Your task to perform on an android device: uninstall "Pinterest" Image 0: 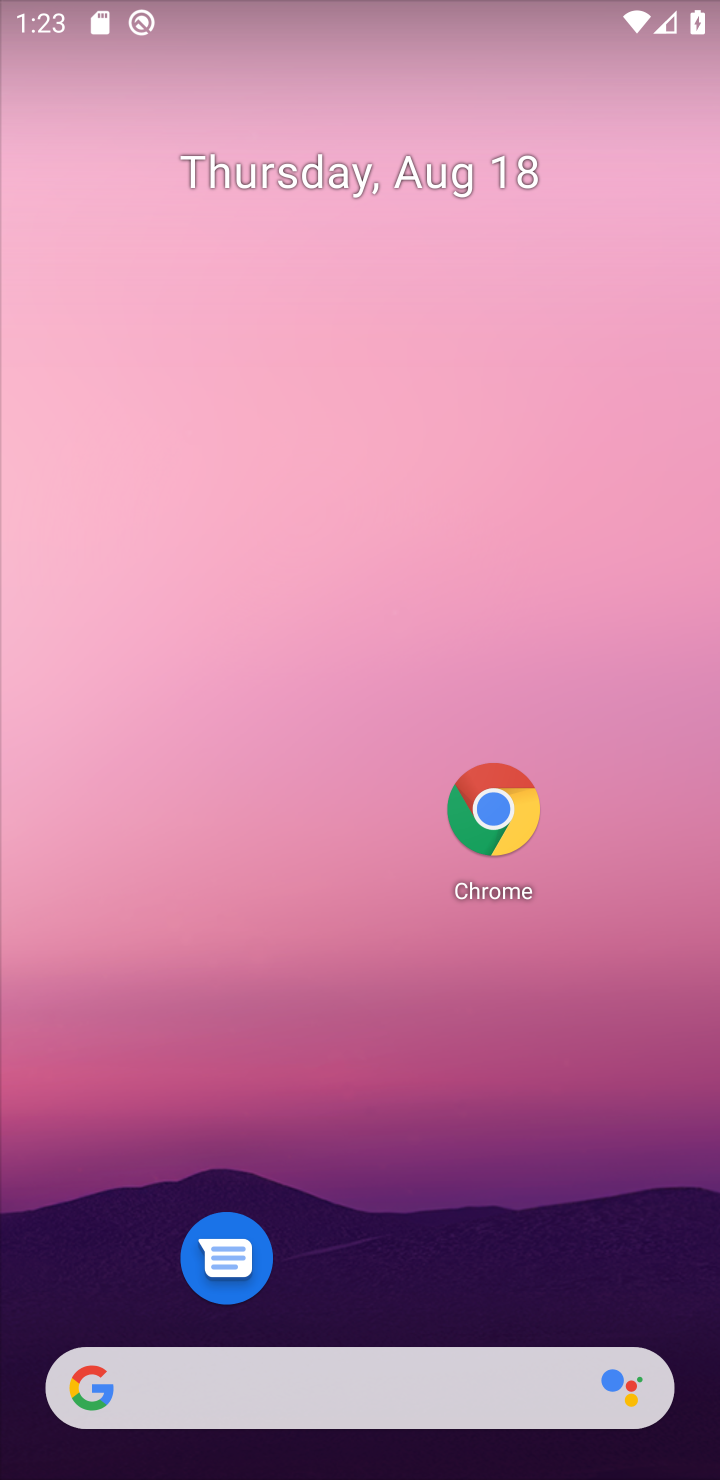
Step 0: drag from (337, 1312) to (439, 411)
Your task to perform on an android device: uninstall "Pinterest" Image 1: 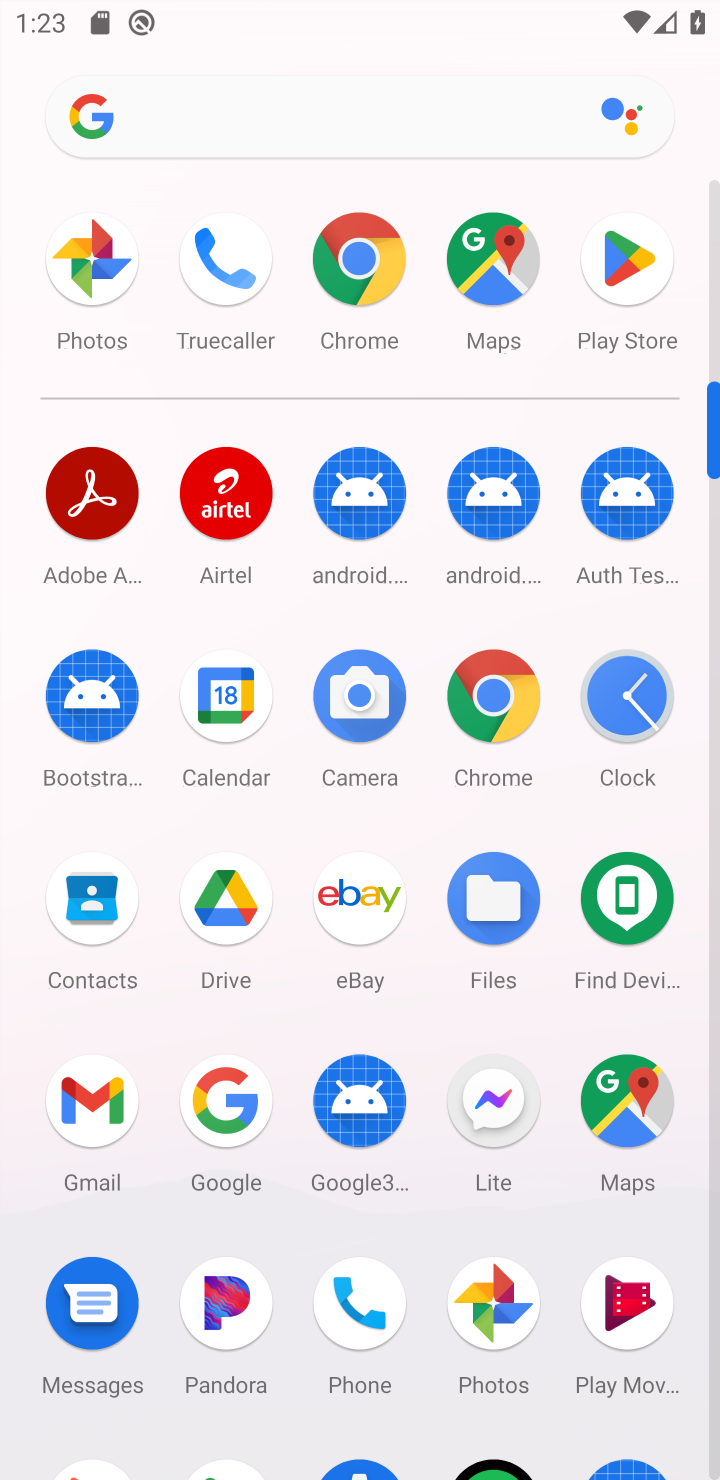
Step 1: click (615, 243)
Your task to perform on an android device: uninstall "Pinterest" Image 2: 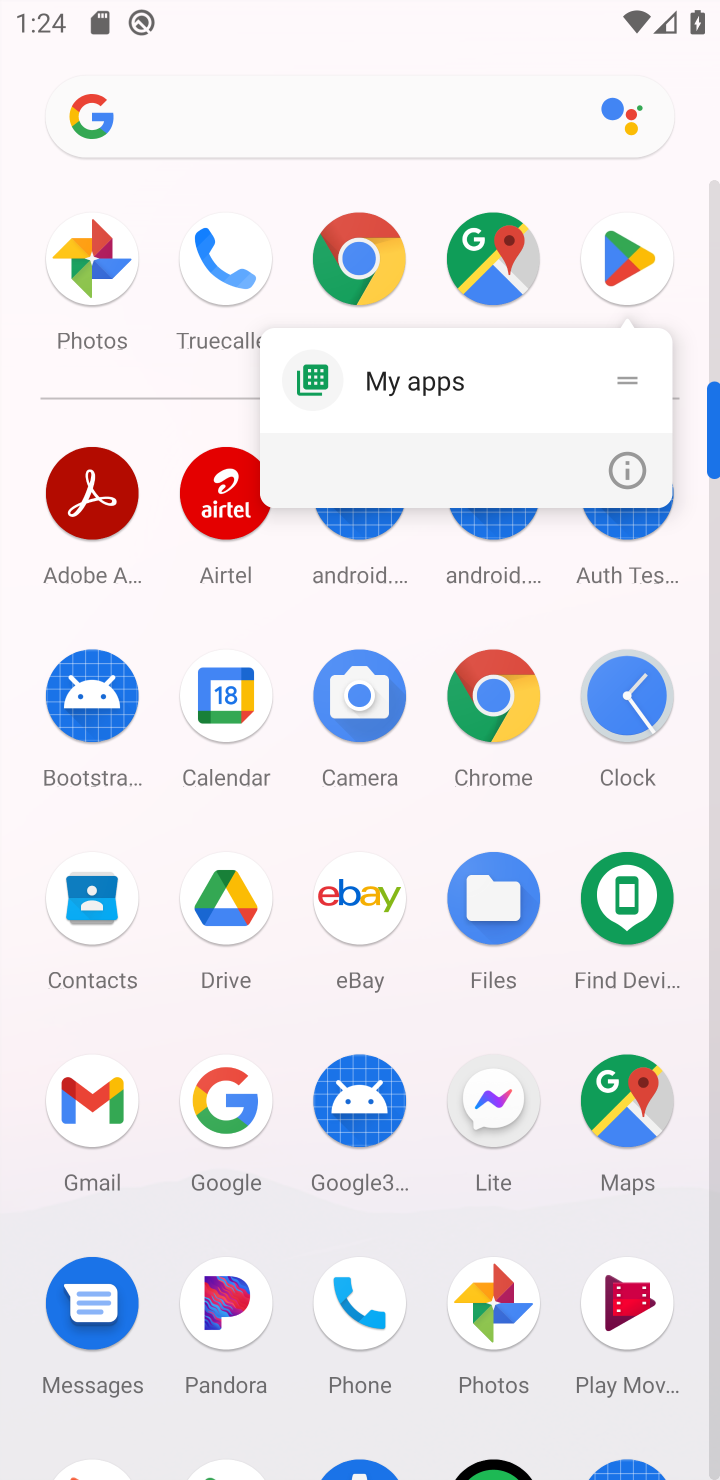
Step 2: click (627, 263)
Your task to perform on an android device: uninstall "Pinterest" Image 3: 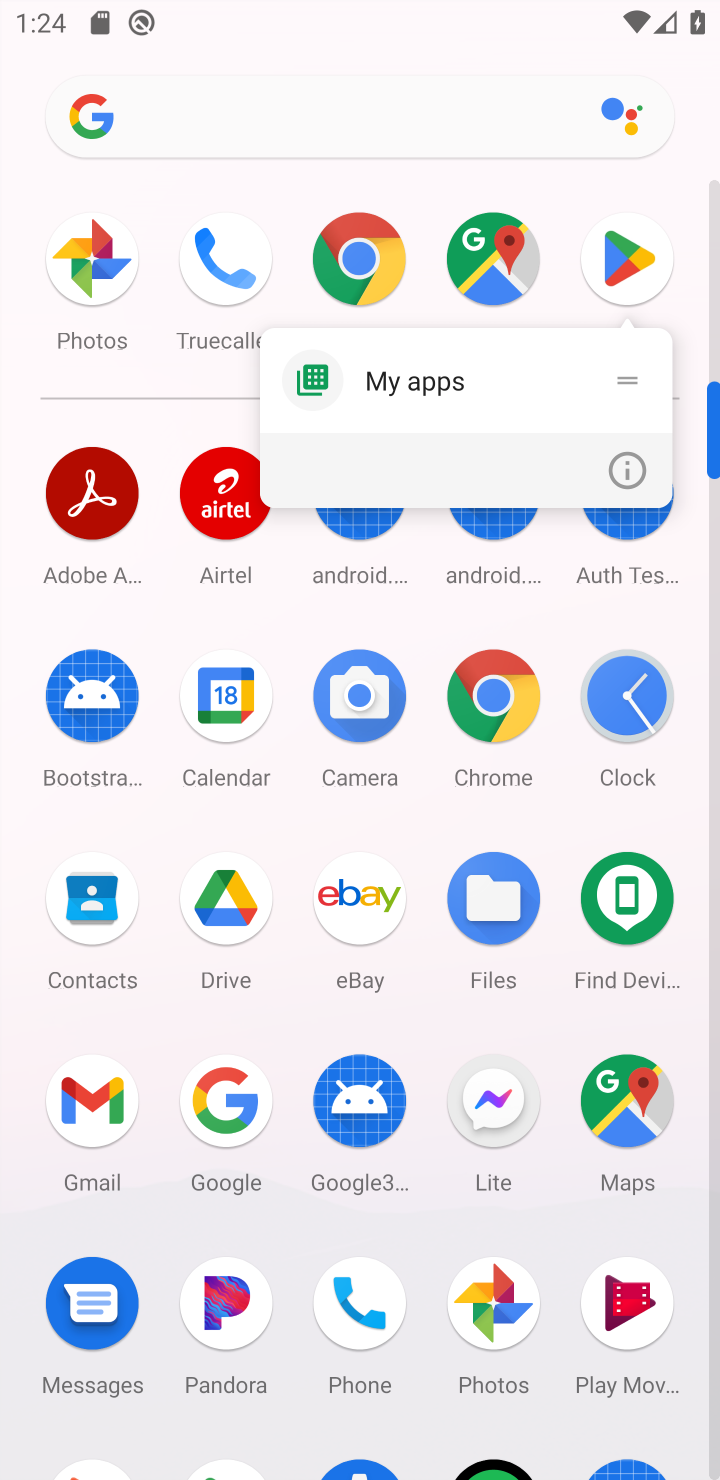
Step 3: drag from (434, 1196) to (544, 537)
Your task to perform on an android device: uninstall "Pinterest" Image 4: 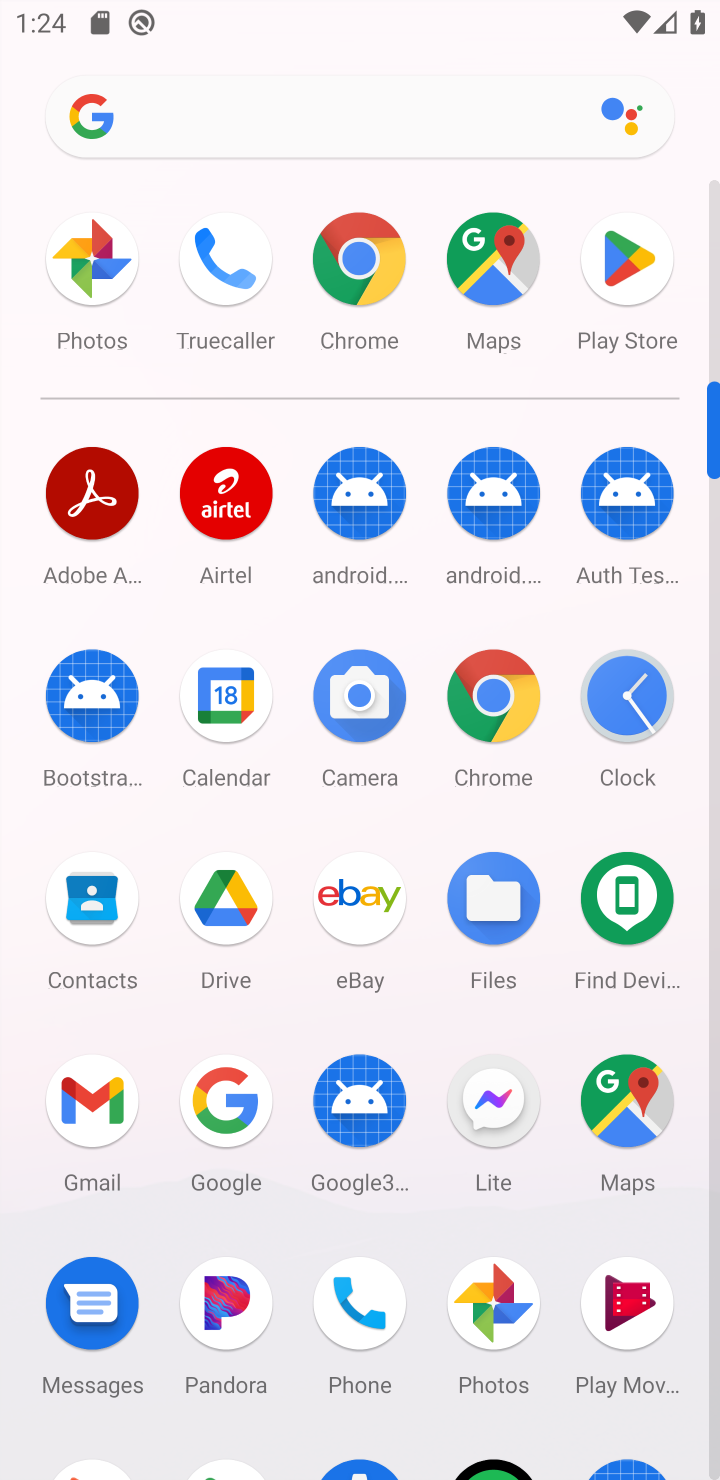
Step 4: drag from (239, 1184) to (354, 241)
Your task to perform on an android device: uninstall "Pinterest" Image 5: 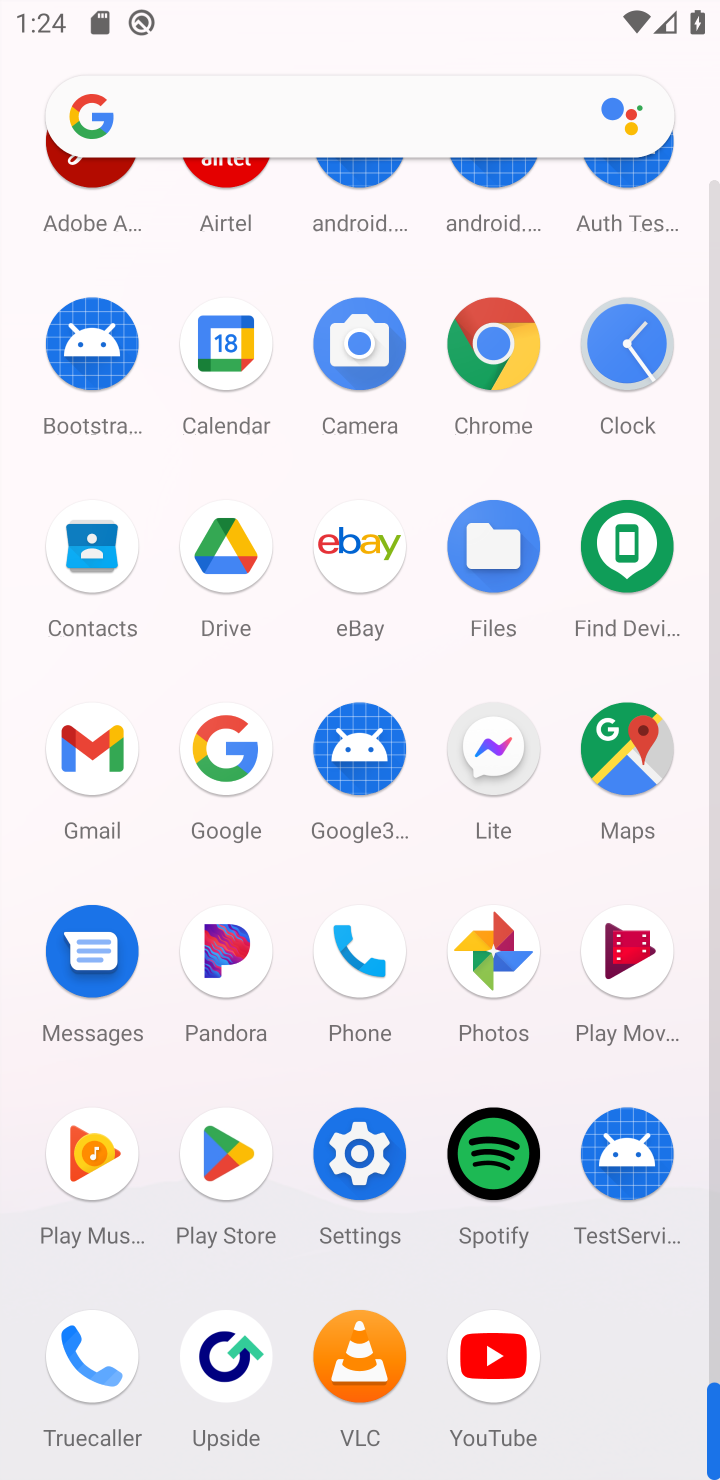
Step 5: click (214, 1149)
Your task to perform on an android device: uninstall "Pinterest" Image 6: 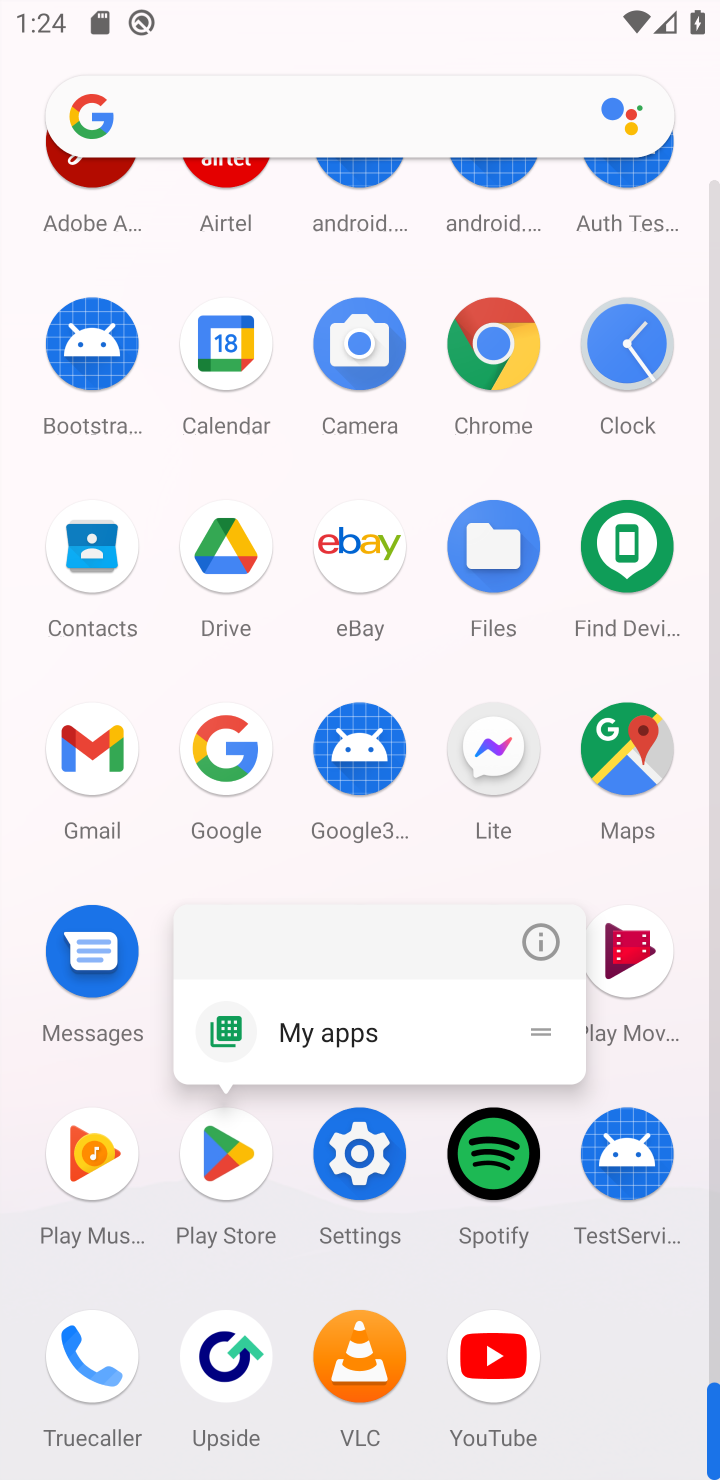
Step 6: click (221, 1165)
Your task to perform on an android device: uninstall "Pinterest" Image 7: 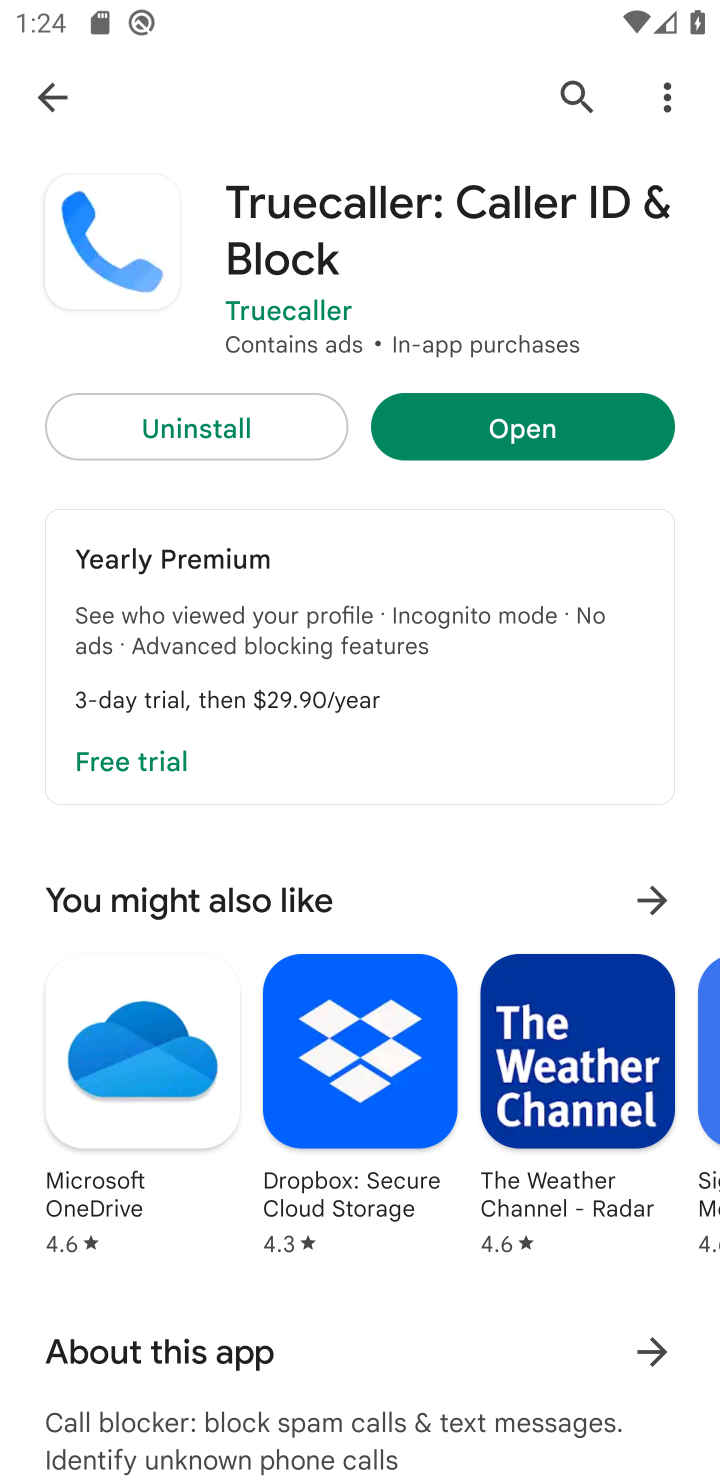
Step 7: click (27, 79)
Your task to perform on an android device: uninstall "Pinterest" Image 8: 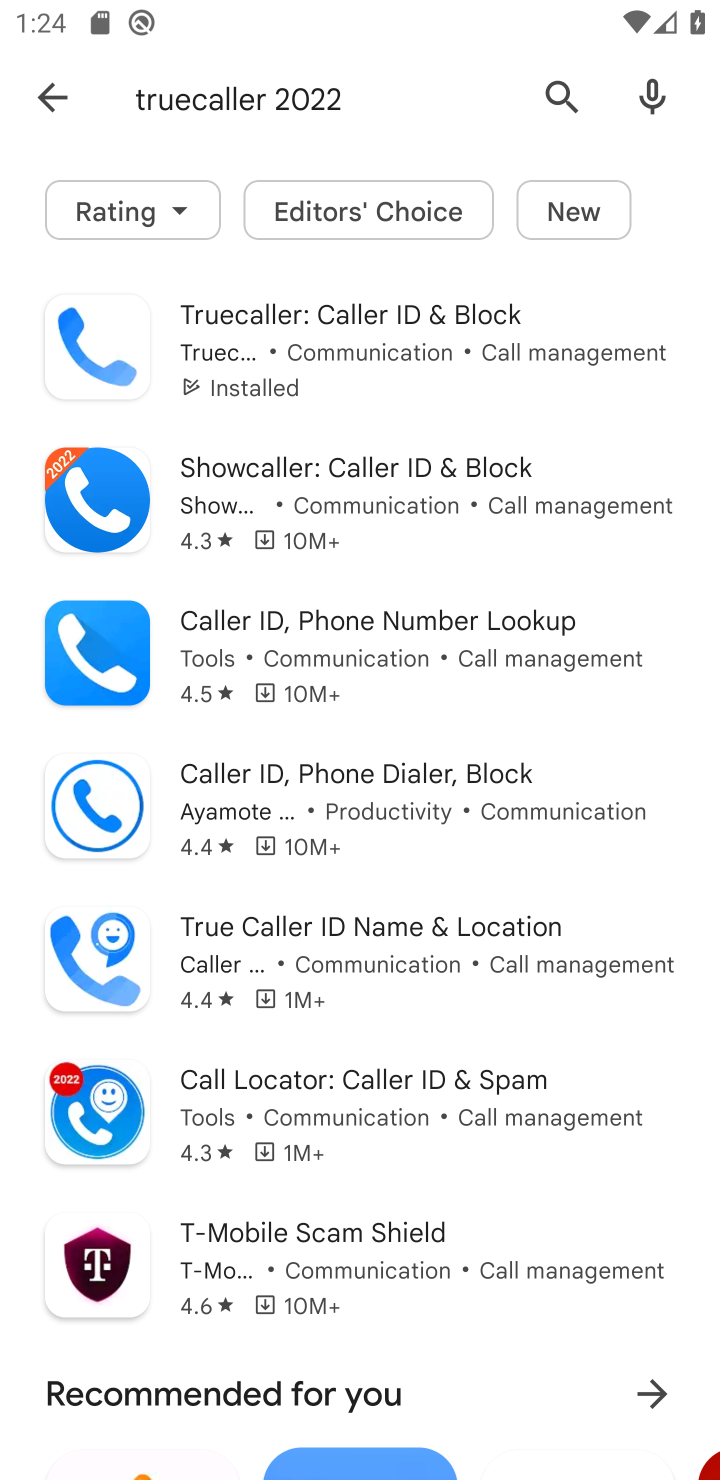
Step 8: click (73, 87)
Your task to perform on an android device: uninstall "Pinterest" Image 9: 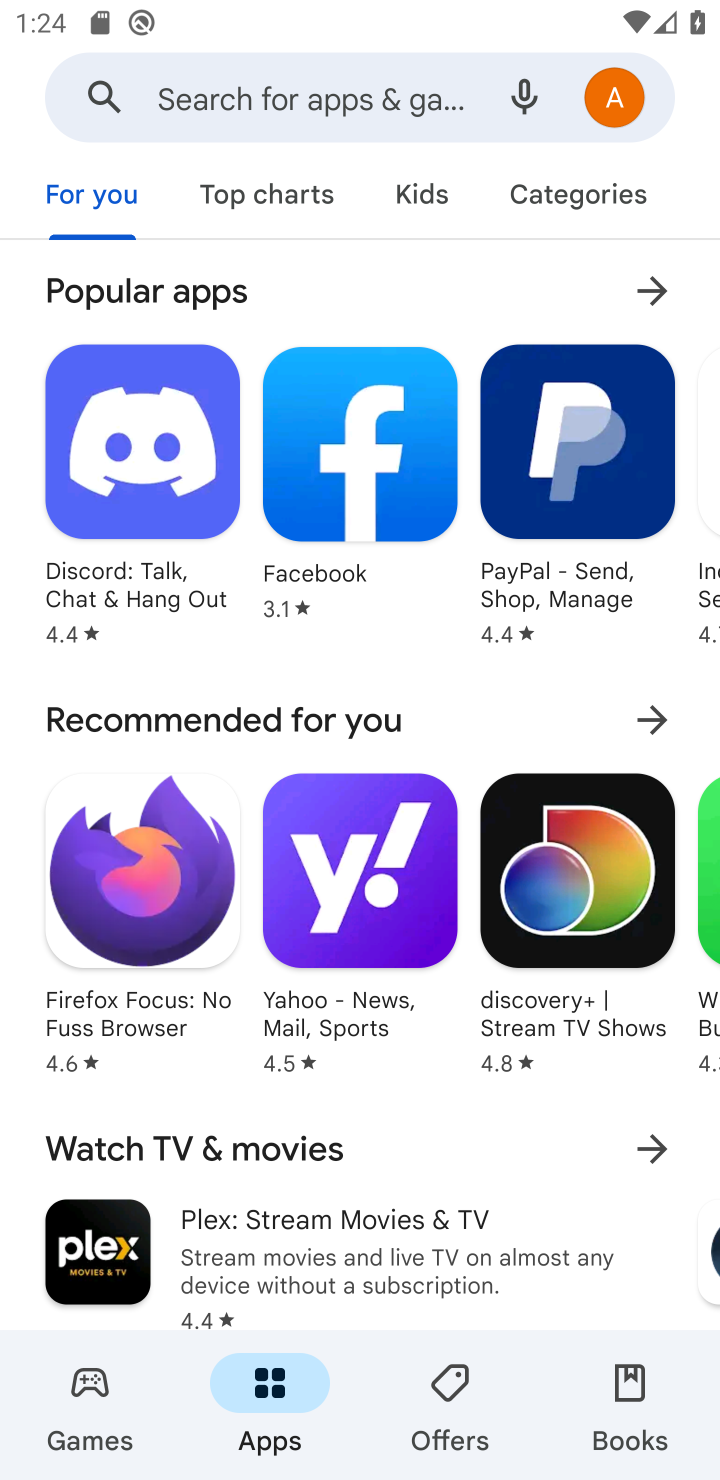
Step 9: click (390, 80)
Your task to perform on an android device: uninstall "Pinterest" Image 10: 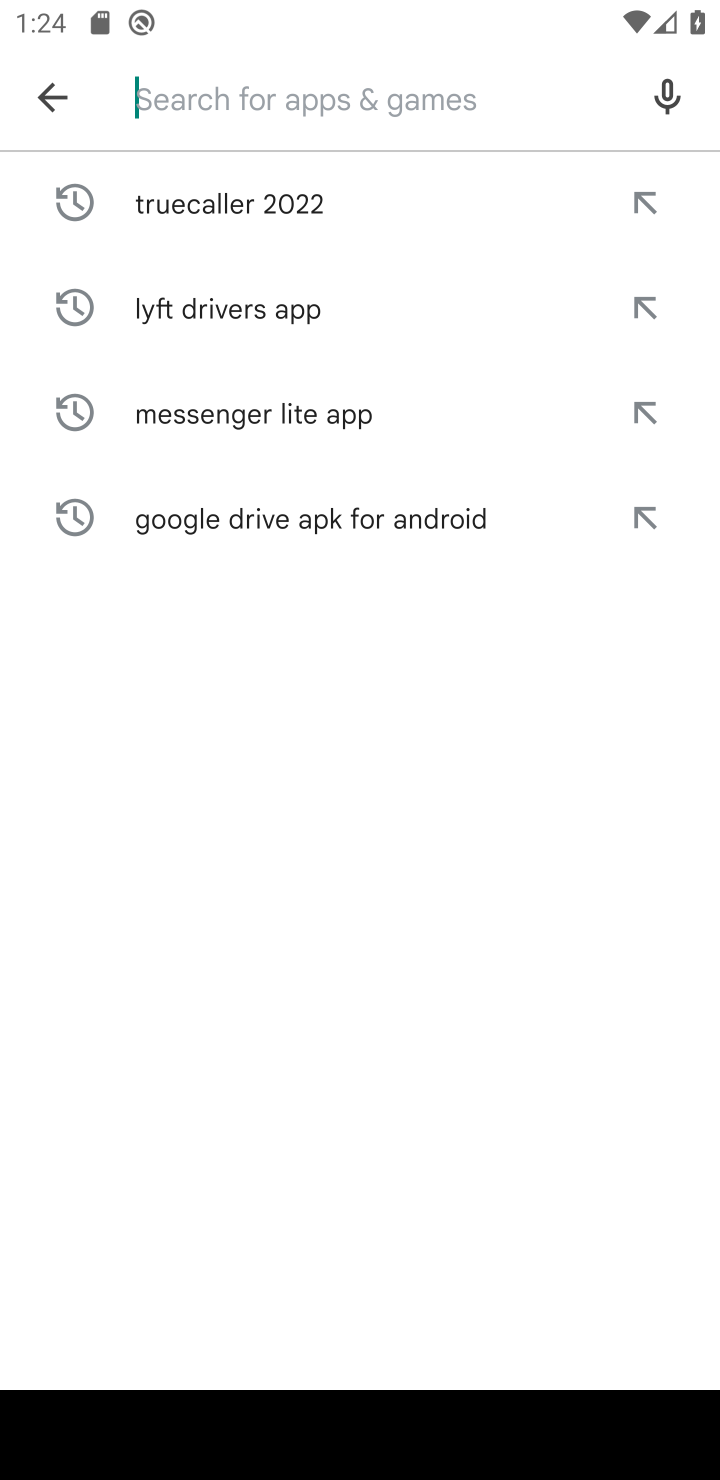
Step 10: type "Pinterest "
Your task to perform on an android device: uninstall "Pinterest" Image 11: 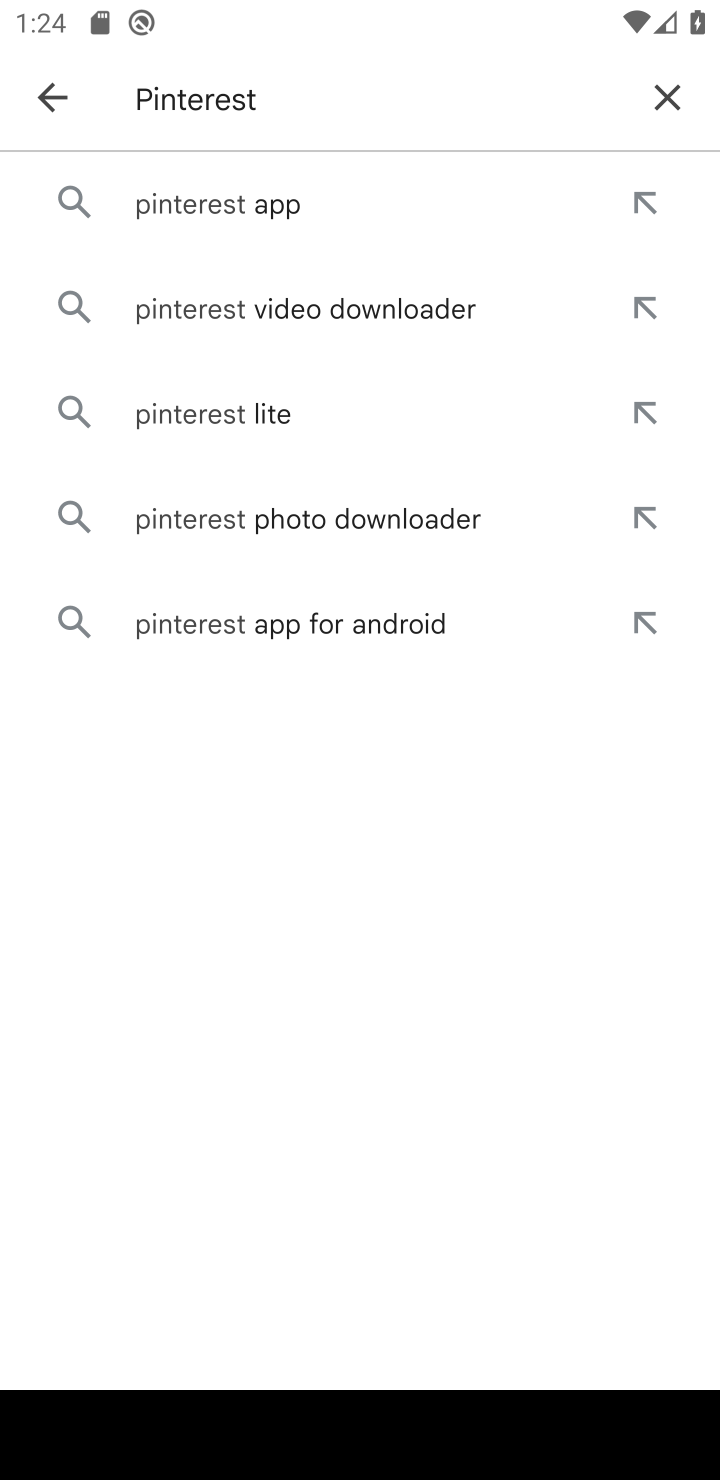
Step 11: click (284, 221)
Your task to perform on an android device: uninstall "Pinterest" Image 12: 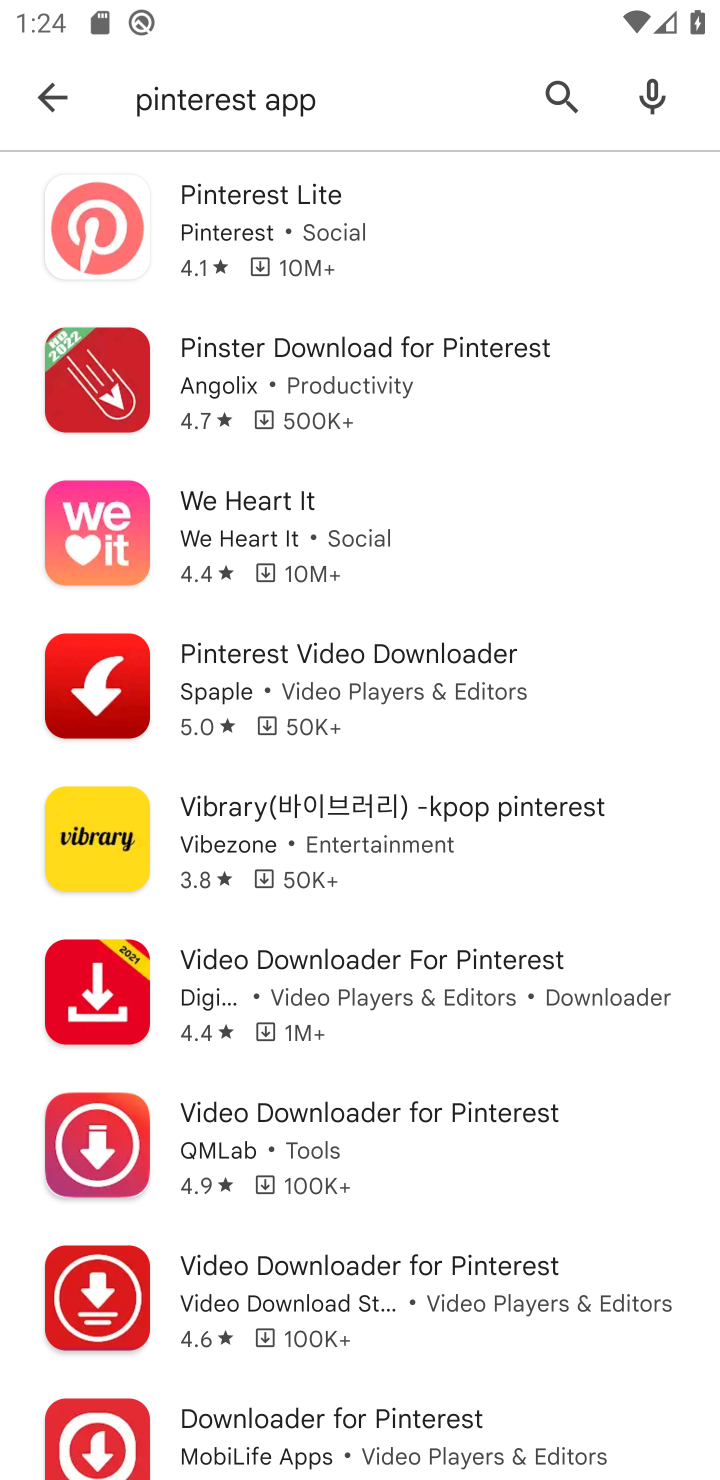
Step 12: click (249, 204)
Your task to perform on an android device: uninstall "Pinterest" Image 13: 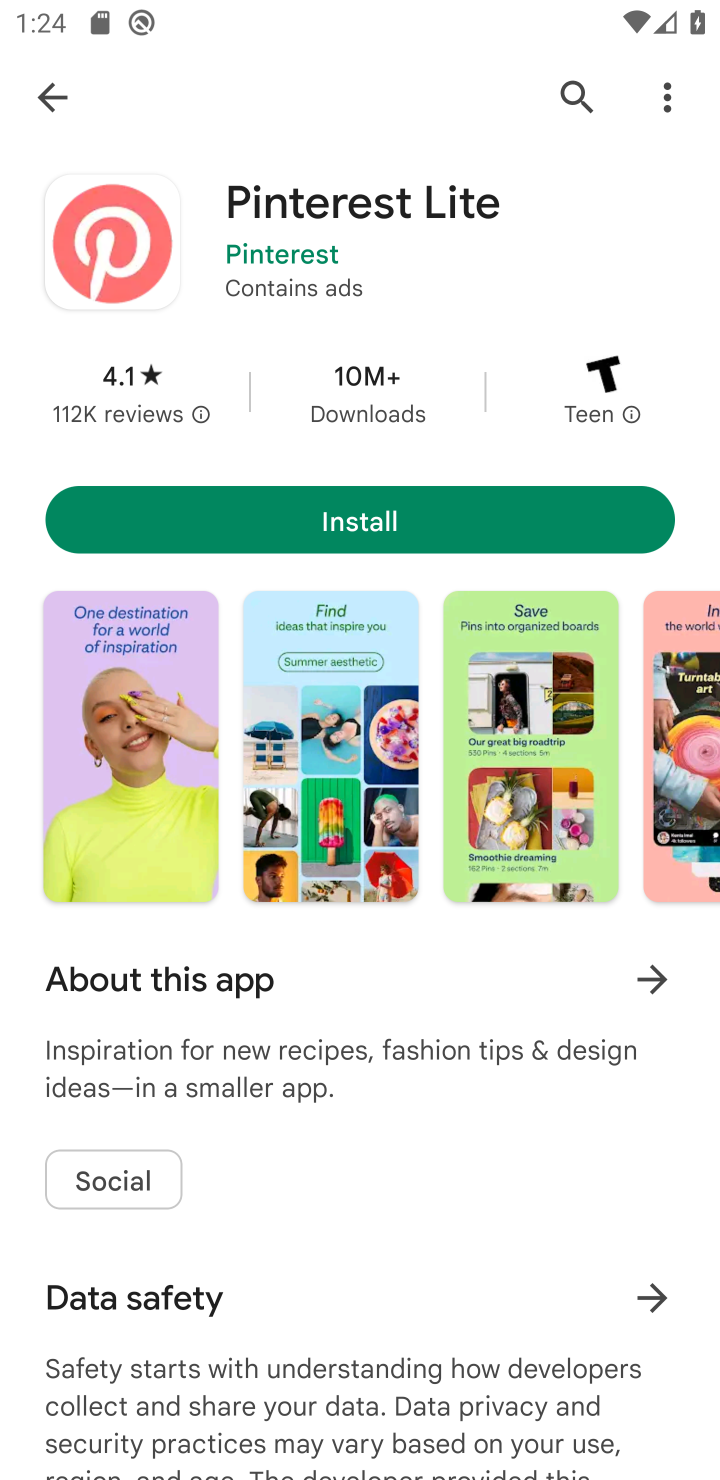
Step 13: click (403, 507)
Your task to perform on an android device: uninstall "Pinterest" Image 14: 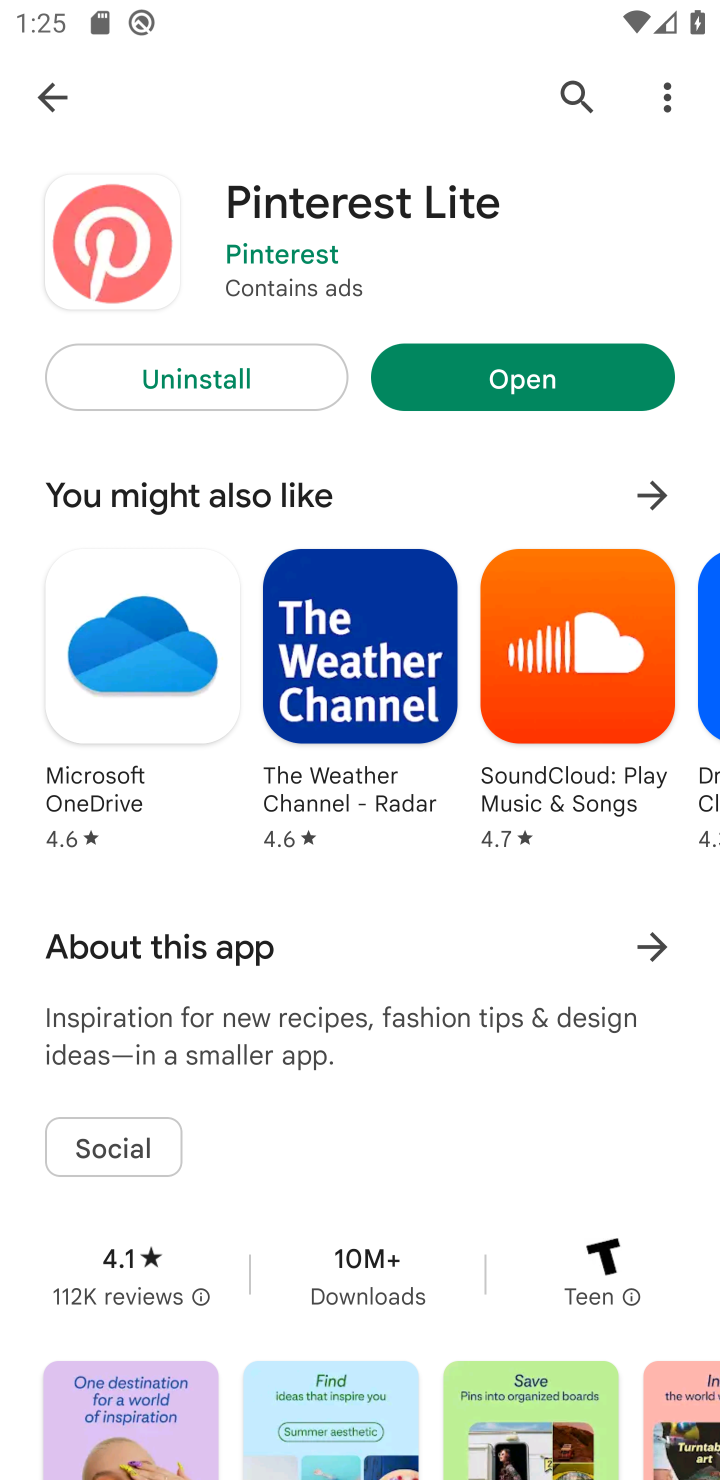
Step 14: task complete